Your task to perform on an android device: see sites visited before in the chrome app Image 0: 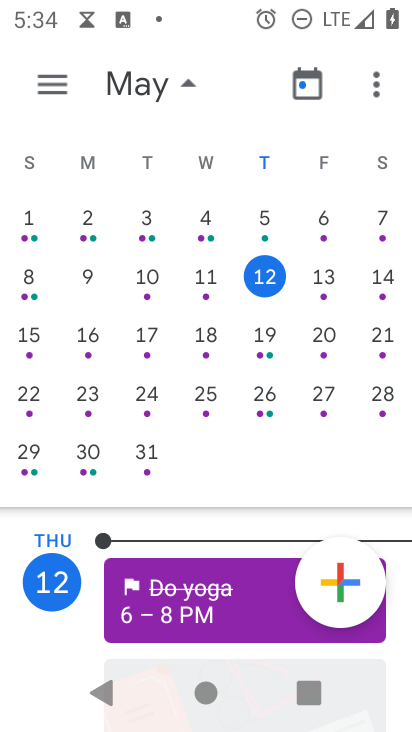
Step 0: press home button
Your task to perform on an android device: see sites visited before in the chrome app Image 1: 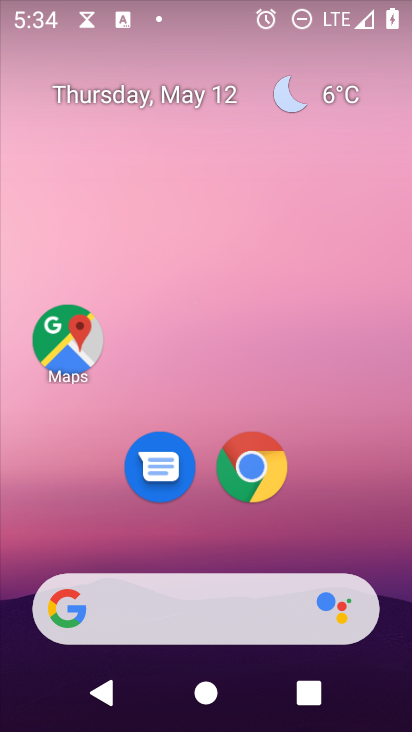
Step 1: drag from (242, 589) to (324, 38)
Your task to perform on an android device: see sites visited before in the chrome app Image 2: 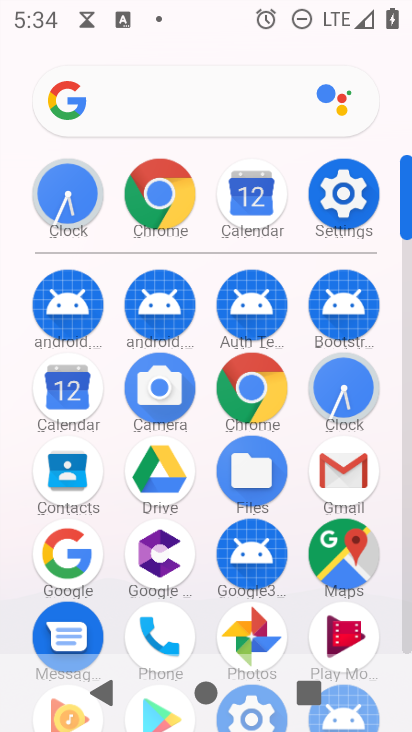
Step 2: click (277, 397)
Your task to perform on an android device: see sites visited before in the chrome app Image 3: 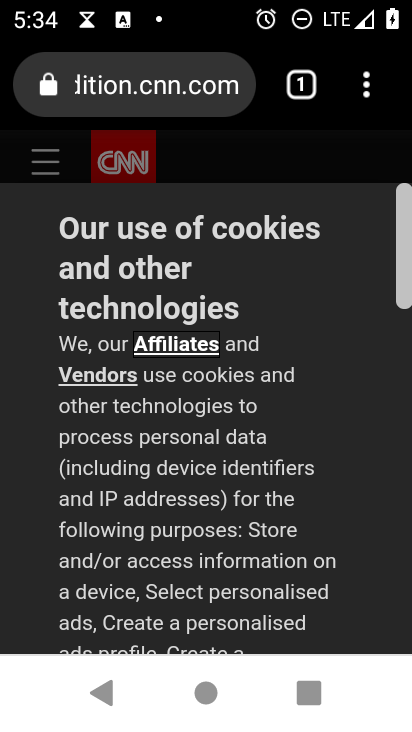
Step 3: task complete